Your task to perform on an android device: turn notification dots off Image 0: 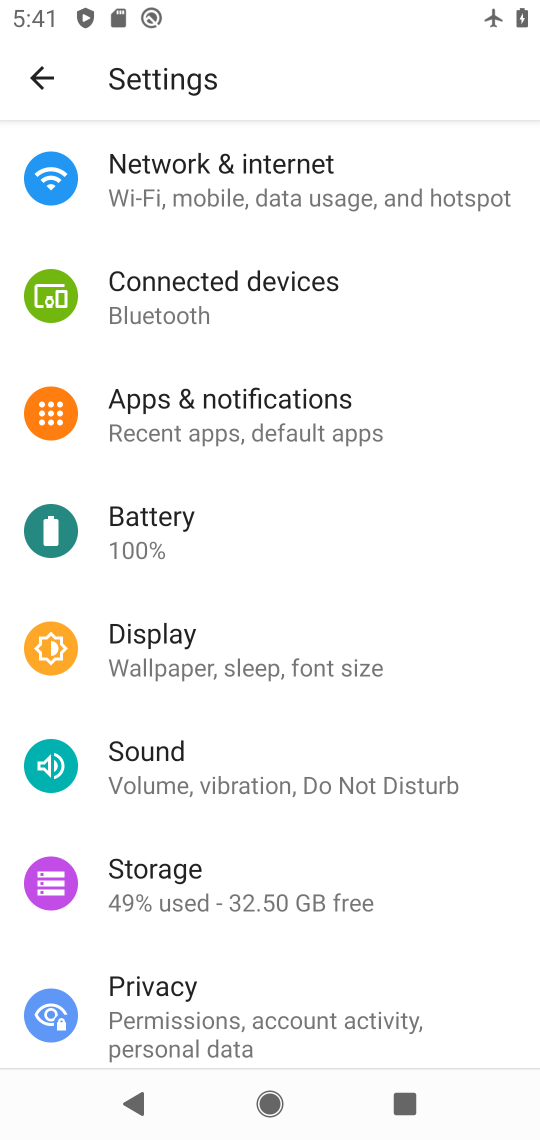
Step 0: click (226, 435)
Your task to perform on an android device: turn notification dots off Image 1: 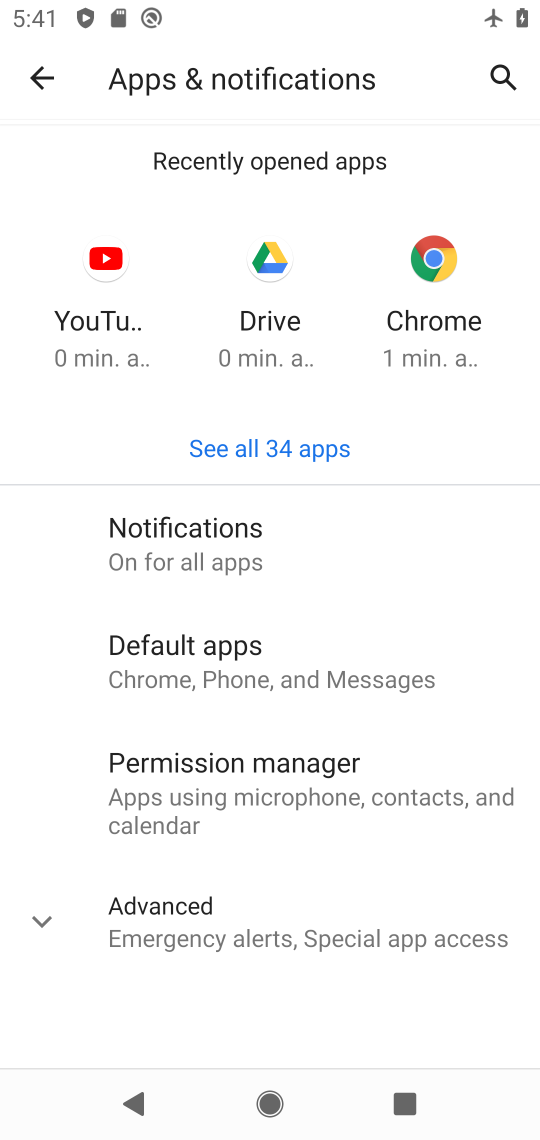
Step 1: click (290, 555)
Your task to perform on an android device: turn notification dots off Image 2: 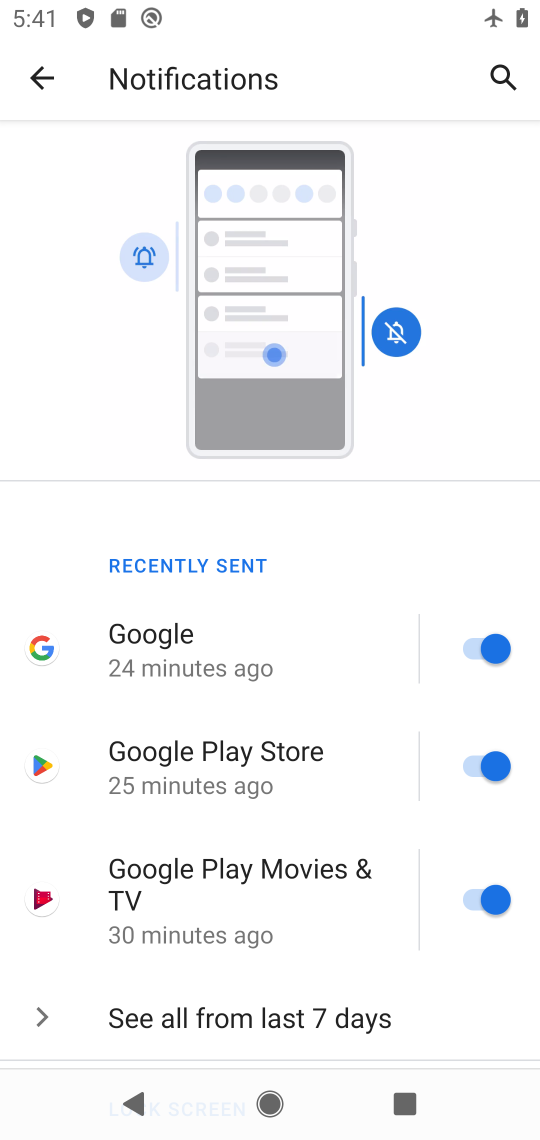
Step 2: drag from (322, 936) to (290, 233)
Your task to perform on an android device: turn notification dots off Image 3: 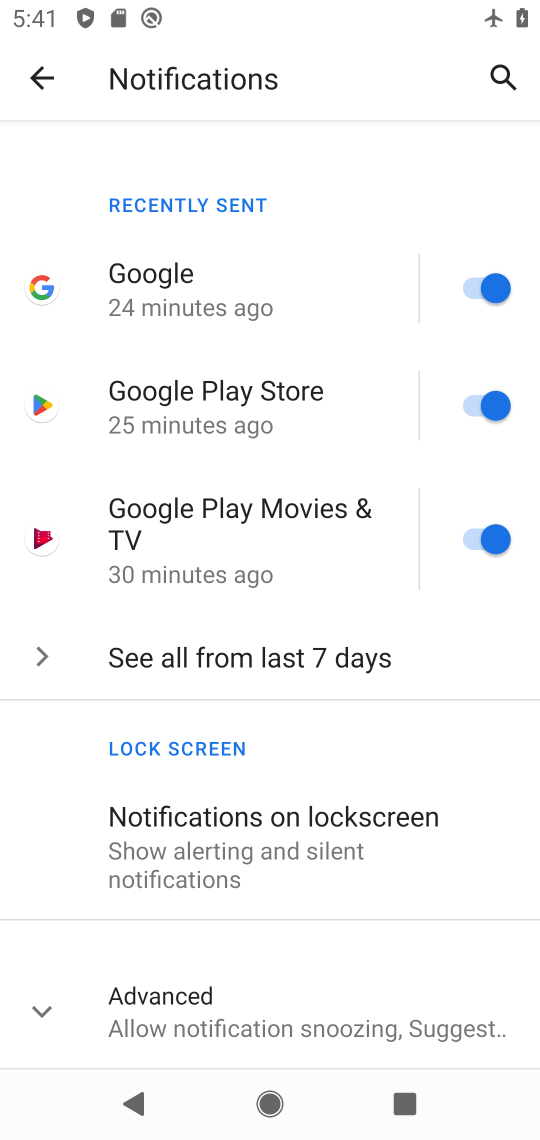
Step 3: click (392, 1046)
Your task to perform on an android device: turn notification dots off Image 4: 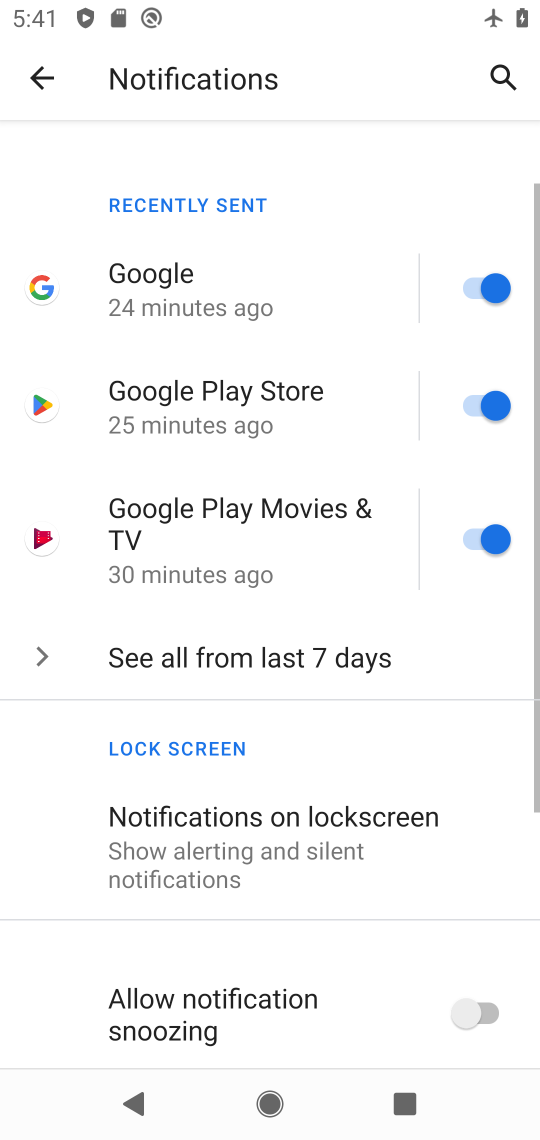
Step 4: task complete